Your task to perform on an android device: open a bookmark in the chrome app Image 0: 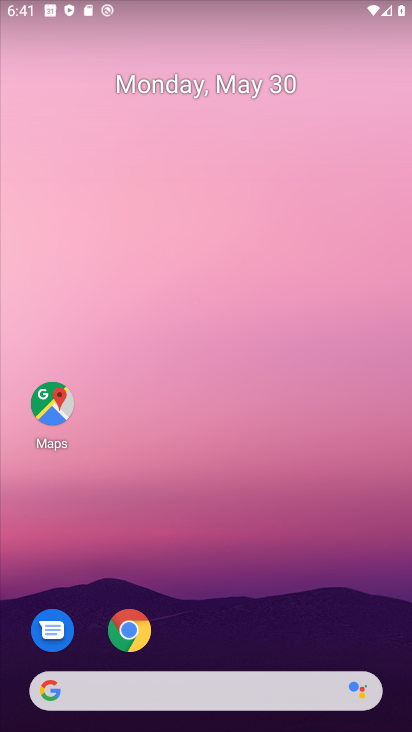
Step 0: drag from (334, 629) to (263, 68)
Your task to perform on an android device: open a bookmark in the chrome app Image 1: 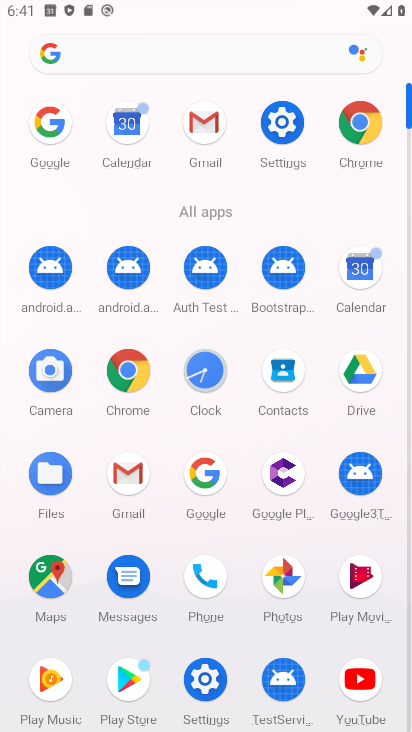
Step 1: click (346, 112)
Your task to perform on an android device: open a bookmark in the chrome app Image 2: 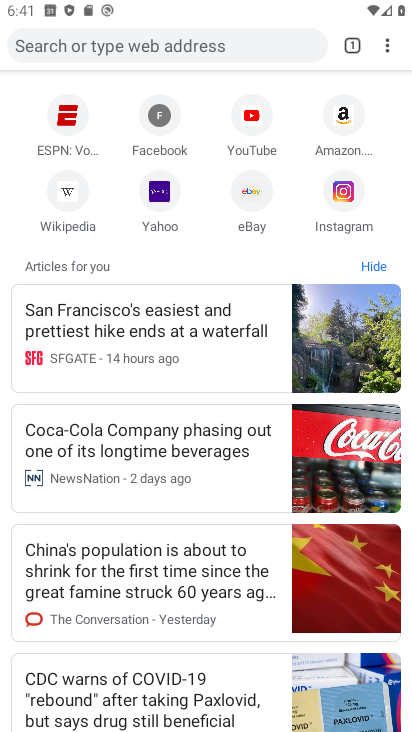
Step 2: click (385, 39)
Your task to perform on an android device: open a bookmark in the chrome app Image 3: 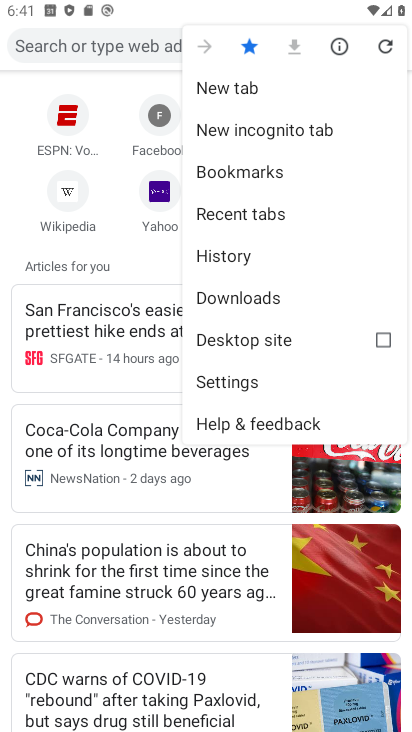
Step 3: click (250, 173)
Your task to perform on an android device: open a bookmark in the chrome app Image 4: 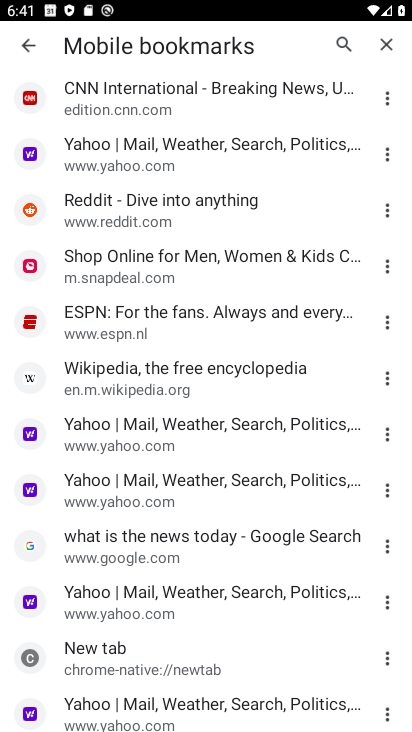
Step 4: task complete